Your task to perform on an android device: What's the weather going to be this weekend? Image 0: 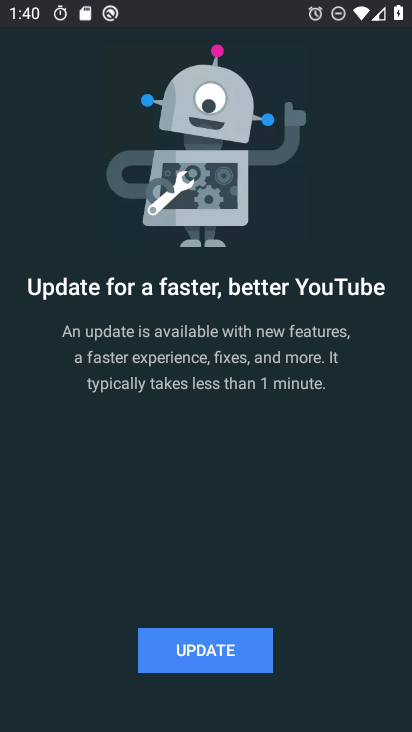
Step 0: press home button
Your task to perform on an android device: What's the weather going to be this weekend? Image 1: 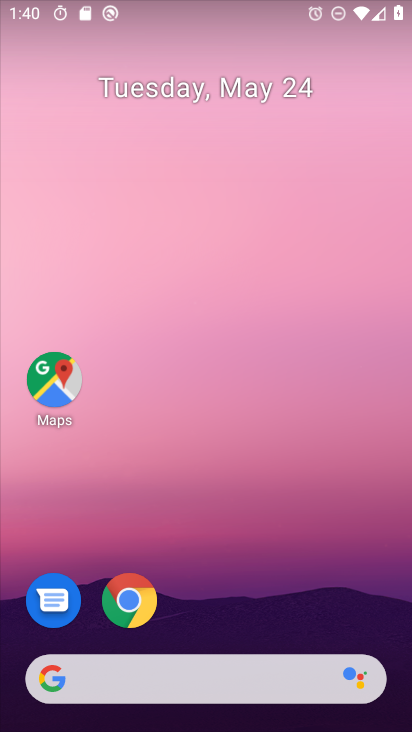
Step 1: drag from (273, 566) to (312, 136)
Your task to perform on an android device: What's the weather going to be this weekend? Image 2: 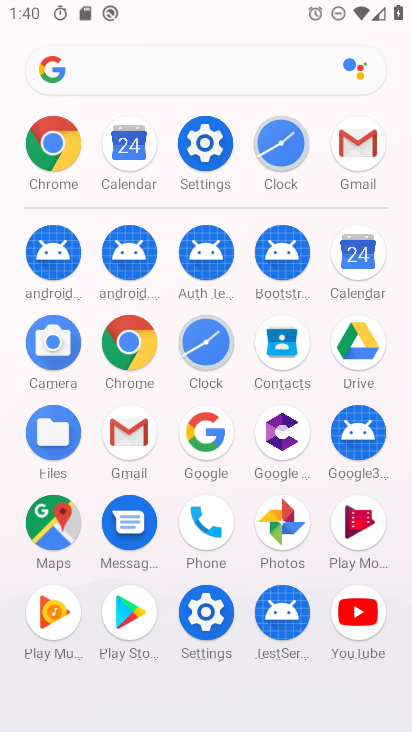
Step 2: click (130, 347)
Your task to perform on an android device: What's the weather going to be this weekend? Image 3: 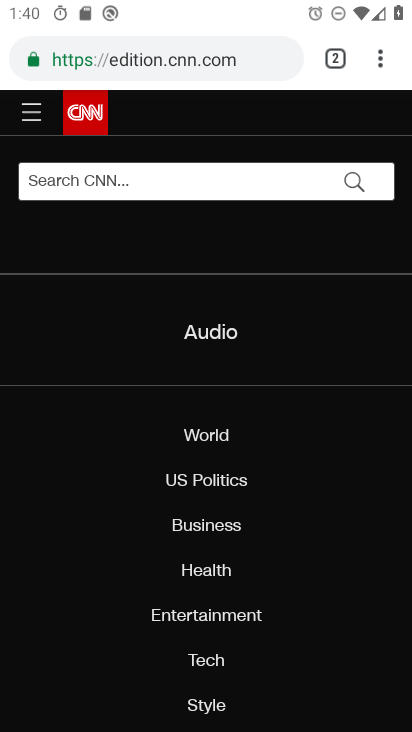
Step 3: click (216, 55)
Your task to perform on an android device: What's the weather going to be this weekend? Image 4: 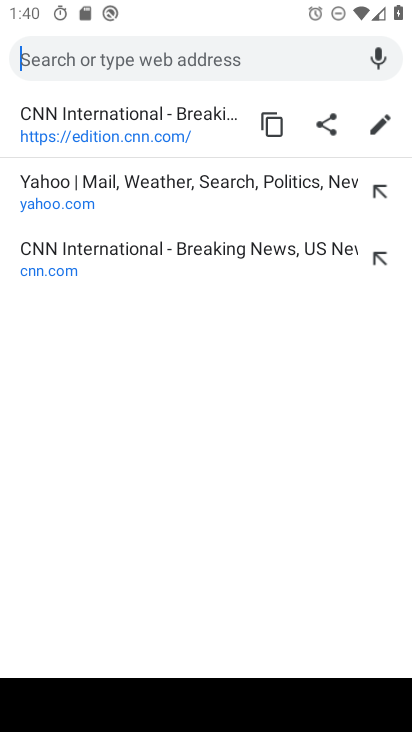
Step 4: type "weather"
Your task to perform on an android device: What's the weather going to be this weekend? Image 5: 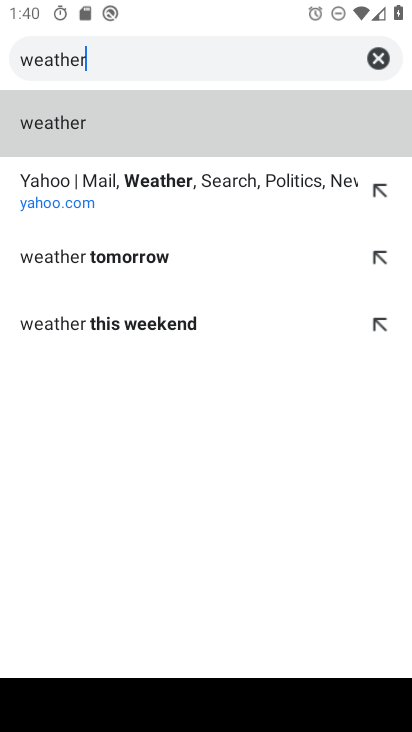
Step 5: click (66, 123)
Your task to perform on an android device: What's the weather going to be this weekend? Image 6: 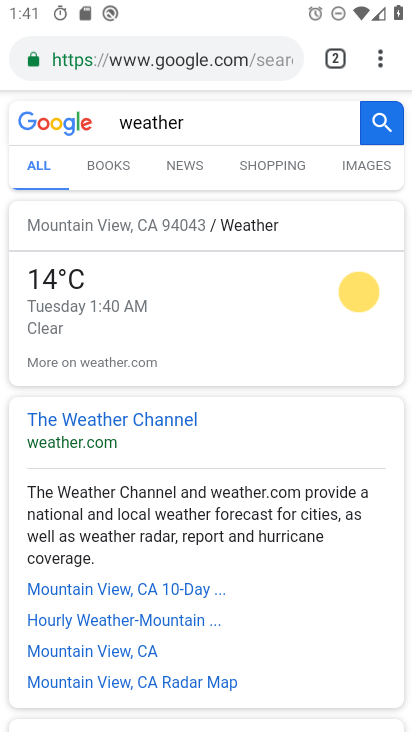
Step 6: click (87, 433)
Your task to perform on an android device: What's the weather going to be this weekend? Image 7: 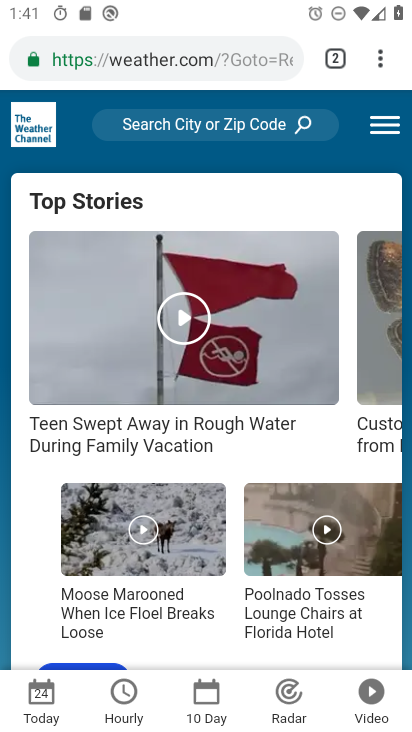
Step 7: click (230, 707)
Your task to perform on an android device: What's the weather going to be this weekend? Image 8: 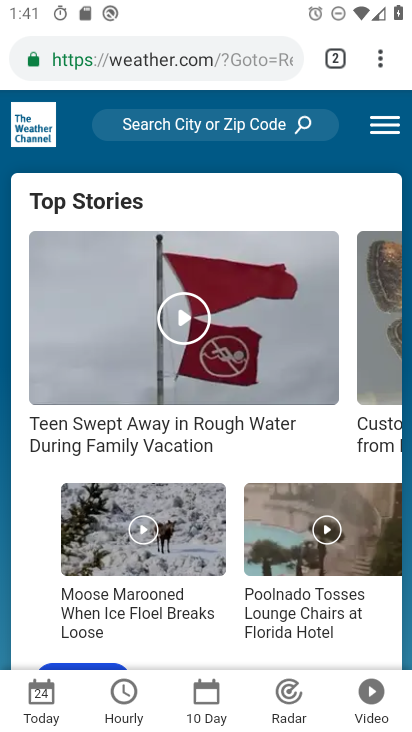
Step 8: click (213, 694)
Your task to perform on an android device: What's the weather going to be this weekend? Image 9: 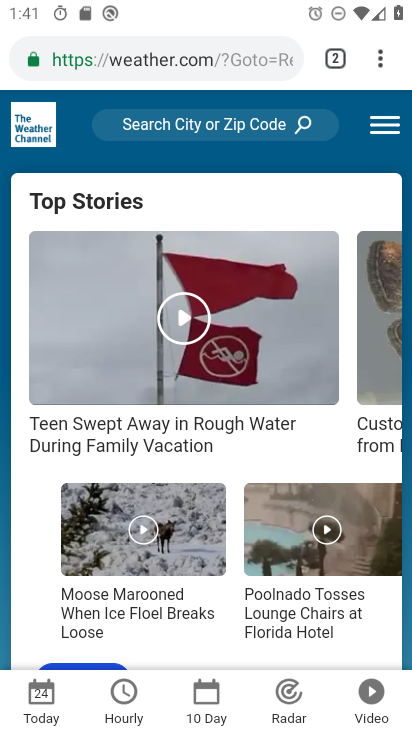
Step 9: drag from (280, 337) to (320, 695)
Your task to perform on an android device: What's the weather going to be this weekend? Image 10: 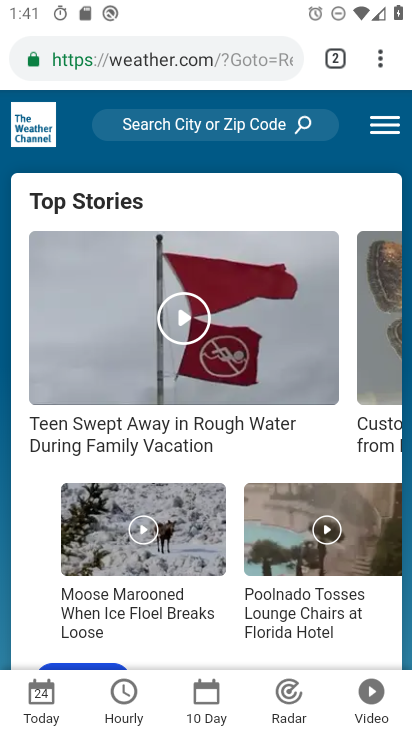
Step 10: drag from (281, 574) to (334, 246)
Your task to perform on an android device: What's the weather going to be this weekend? Image 11: 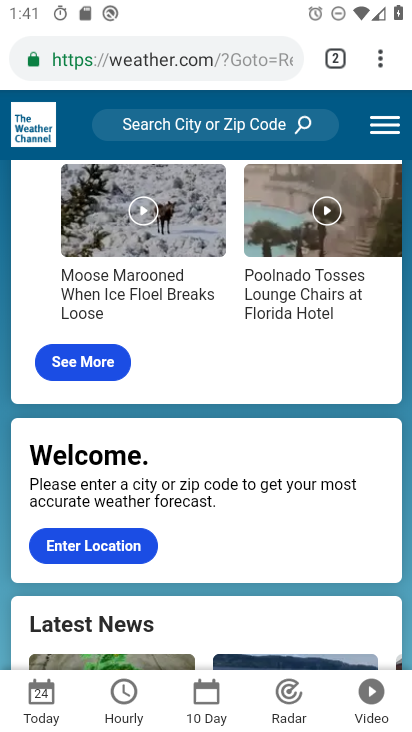
Step 11: drag from (256, 489) to (282, 205)
Your task to perform on an android device: What's the weather going to be this weekend? Image 12: 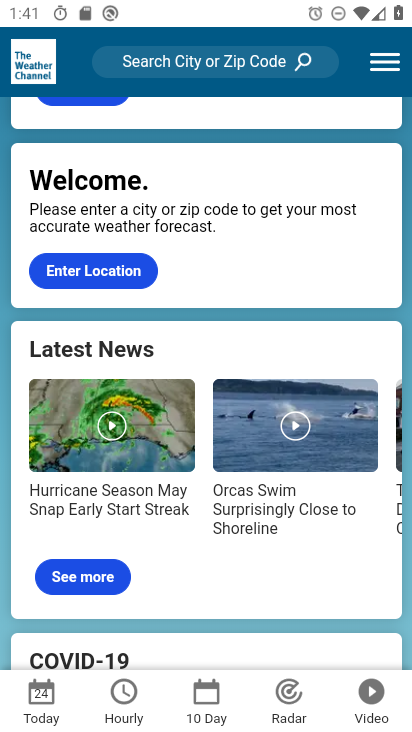
Step 12: click (371, 62)
Your task to perform on an android device: What's the weather going to be this weekend? Image 13: 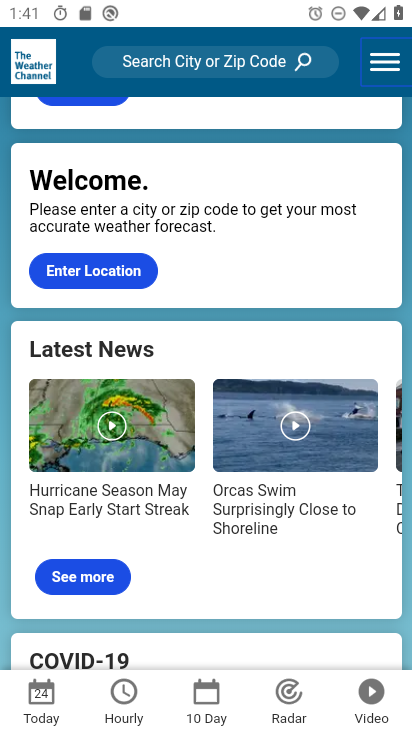
Step 13: click (384, 59)
Your task to perform on an android device: What's the weather going to be this weekend? Image 14: 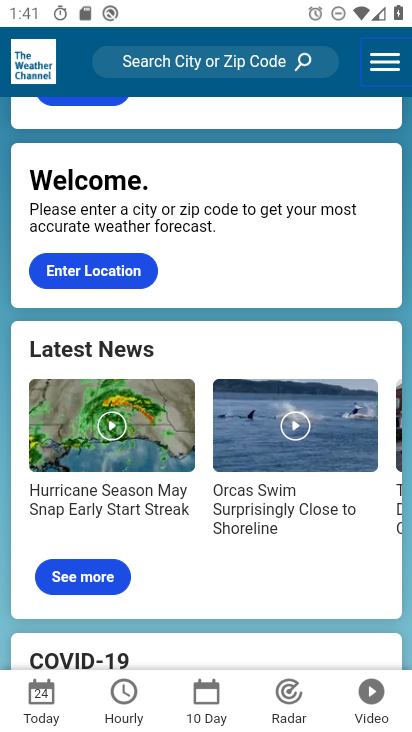
Step 14: click (199, 697)
Your task to perform on an android device: What's the weather going to be this weekend? Image 15: 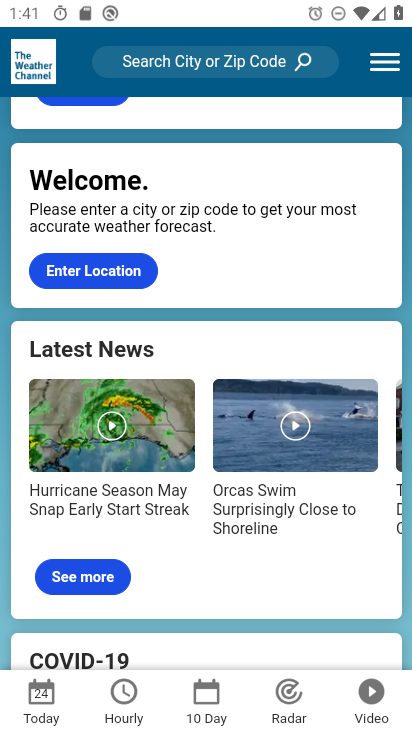
Step 15: drag from (245, 286) to (305, 637)
Your task to perform on an android device: What's the weather going to be this weekend? Image 16: 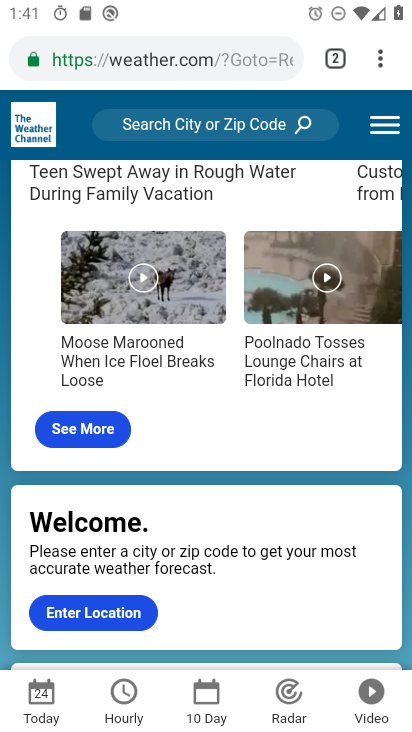
Step 16: drag from (194, 291) to (248, 674)
Your task to perform on an android device: What's the weather going to be this weekend? Image 17: 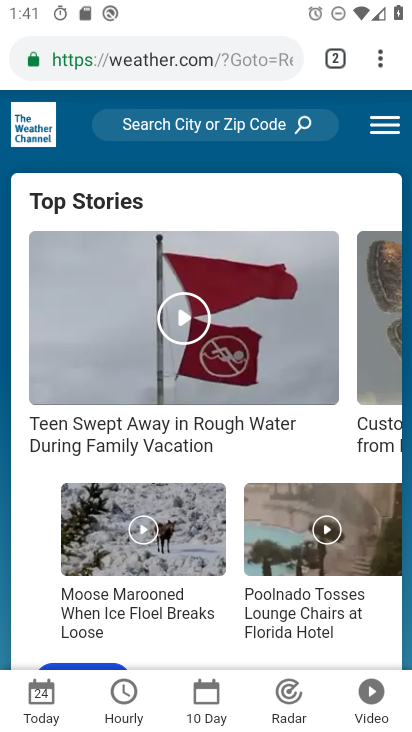
Step 17: drag from (248, 342) to (271, 661)
Your task to perform on an android device: What's the weather going to be this weekend? Image 18: 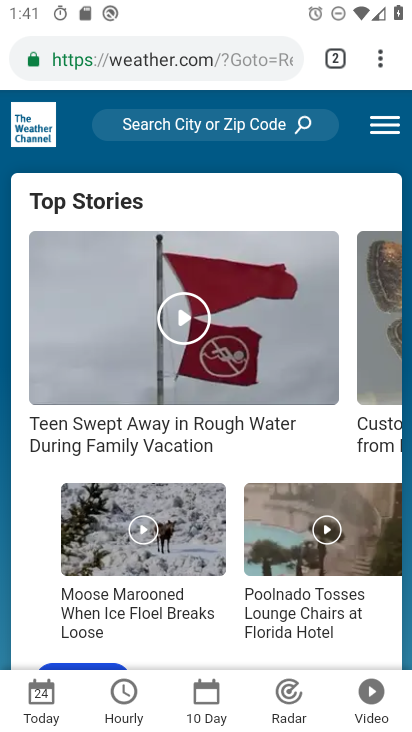
Step 18: press back button
Your task to perform on an android device: What's the weather going to be this weekend? Image 19: 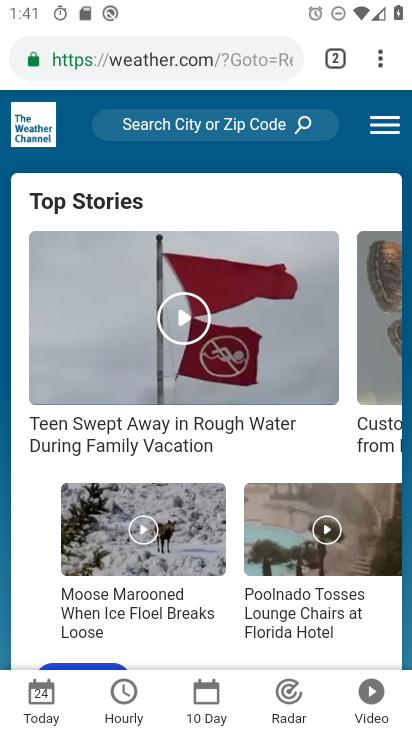
Step 19: press back button
Your task to perform on an android device: What's the weather going to be this weekend? Image 20: 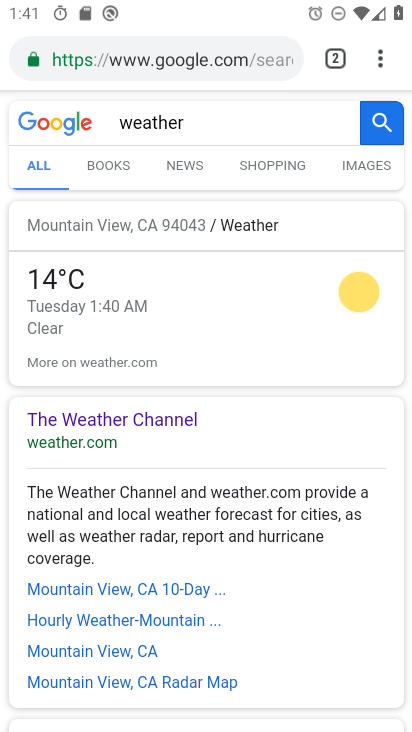
Step 20: drag from (111, 553) to (225, 150)
Your task to perform on an android device: What's the weather going to be this weekend? Image 21: 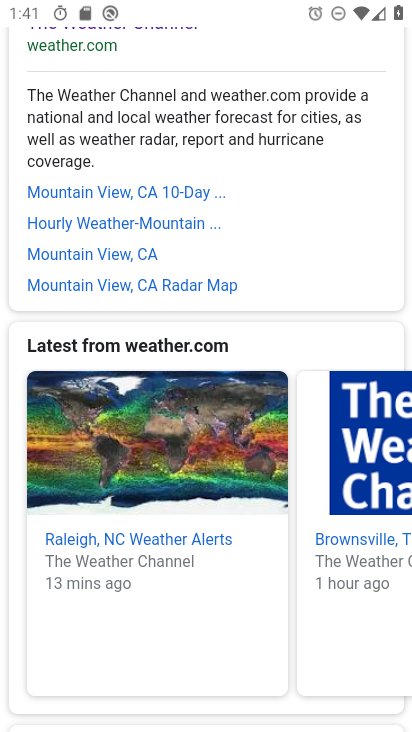
Step 21: drag from (282, 510) to (329, 162)
Your task to perform on an android device: What's the weather going to be this weekend? Image 22: 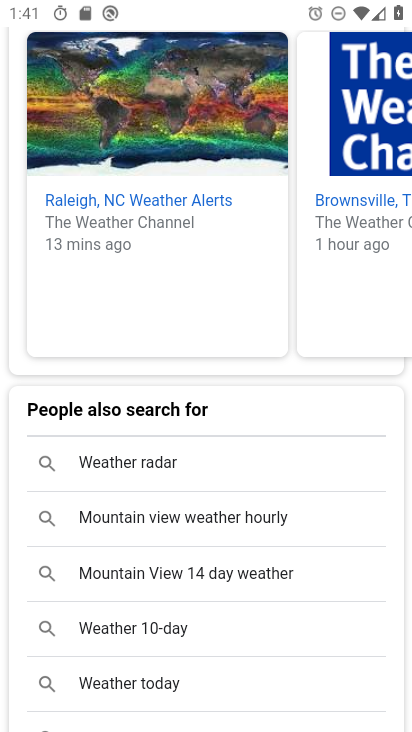
Step 22: drag from (261, 595) to (312, 160)
Your task to perform on an android device: What's the weather going to be this weekend? Image 23: 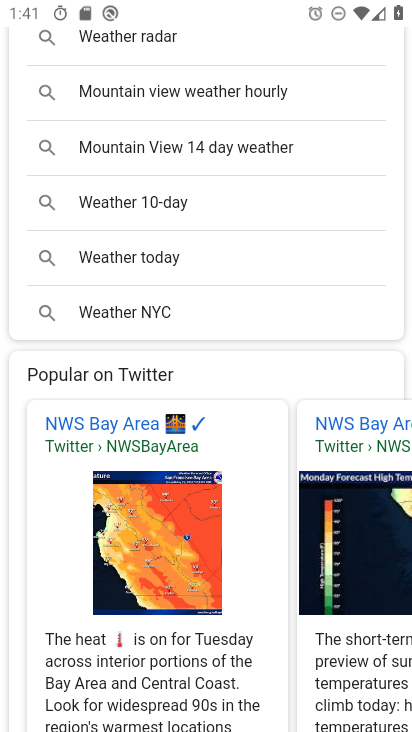
Step 23: drag from (251, 269) to (217, 726)
Your task to perform on an android device: What's the weather going to be this weekend? Image 24: 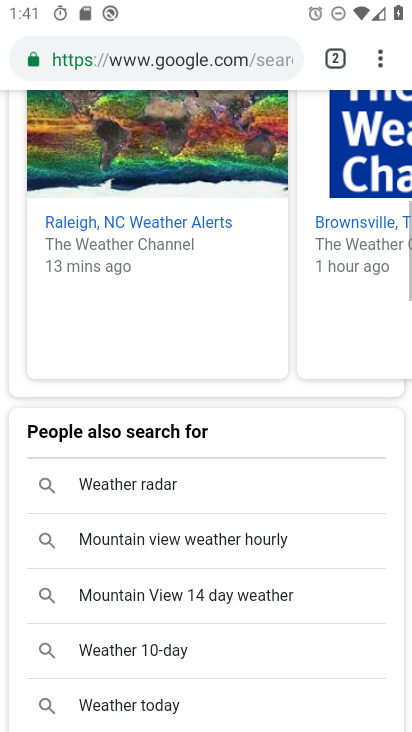
Step 24: drag from (241, 318) to (297, 725)
Your task to perform on an android device: What's the weather going to be this weekend? Image 25: 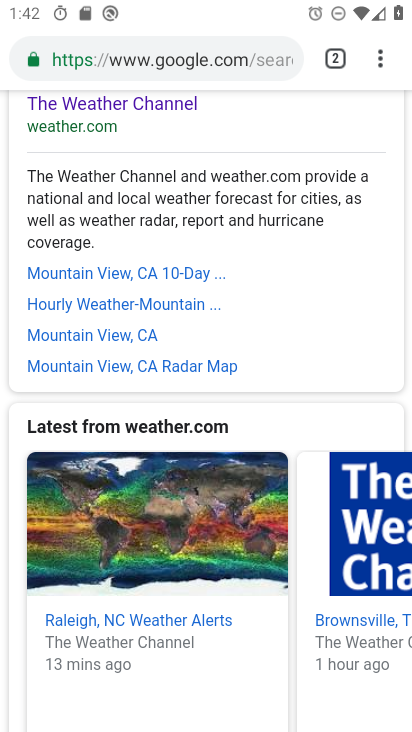
Step 25: click (189, 270)
Your task to perform on an android device: What's the weather going to be this weekend? Image 26: 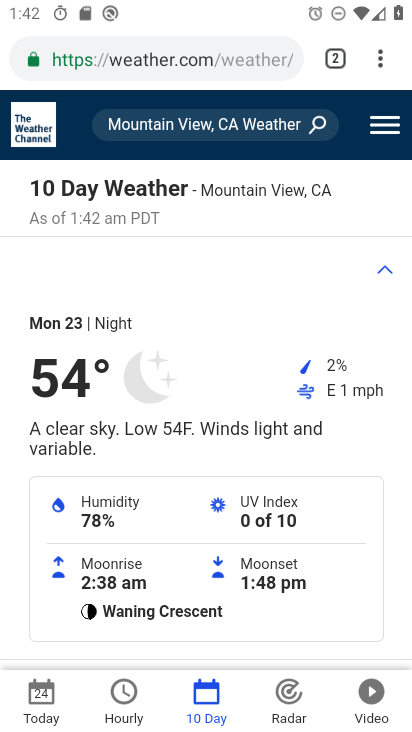
Step 26: task complete